Your task to perform on an android device: Open accessibility settings Image 0: 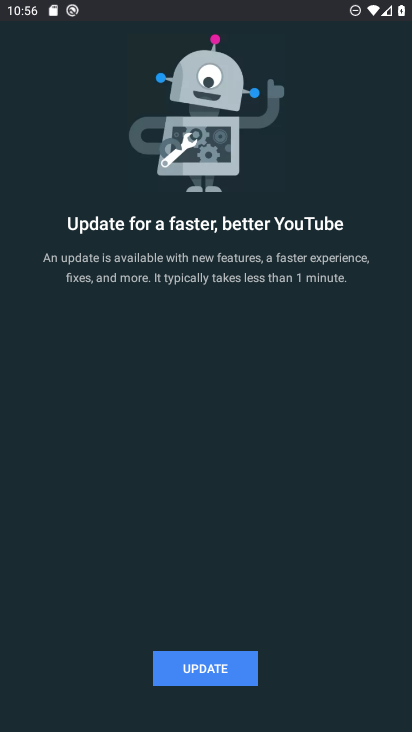
Step 0: press back button
Your task to perform on an android device: Open accessibility settings Image 1: 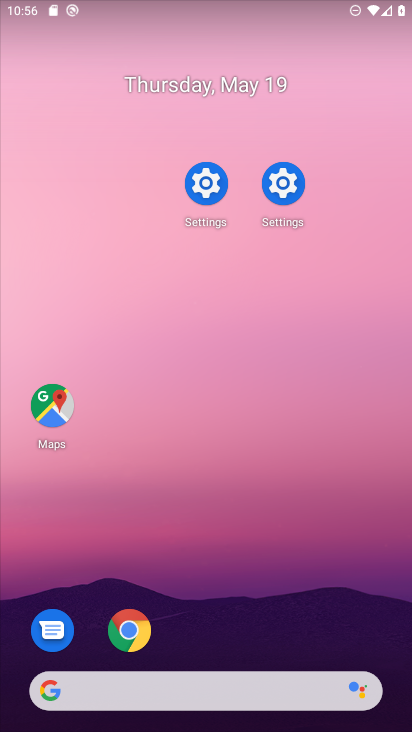
Step 1: drag from (260, 681) to (137, 113)
Your task to perform on an android device: Open accessibility settings Image 2: 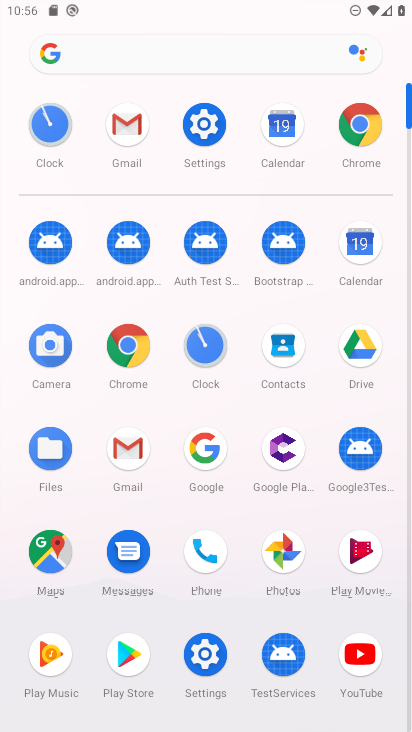
Step 2: click (206, 149)
Your task to perform on an android device: Open accessibility settings Image 3: 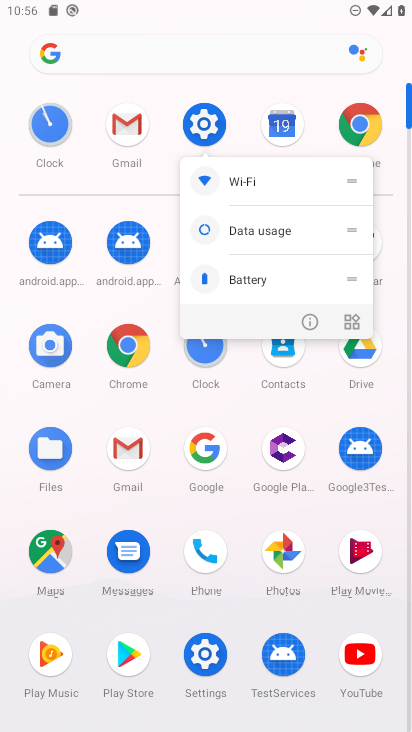
Step 3: click (210, 120)
Your task to perform on an android device: Open accessibility settings Image 4: 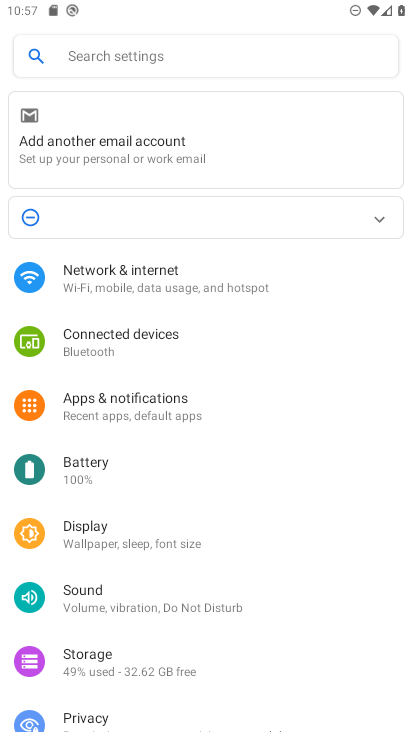
Step 4: drag from (148, 470) to (157, 144)
Your task to perform on an android device: Open accessibility settings Image 5: 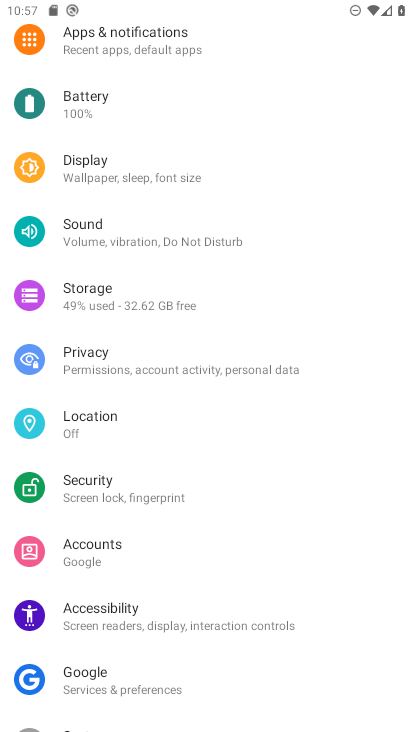
Step 5: drag from (167, 386) to (140, 126)
Your task to perform on an android device: Open accessibility settings Image 6: 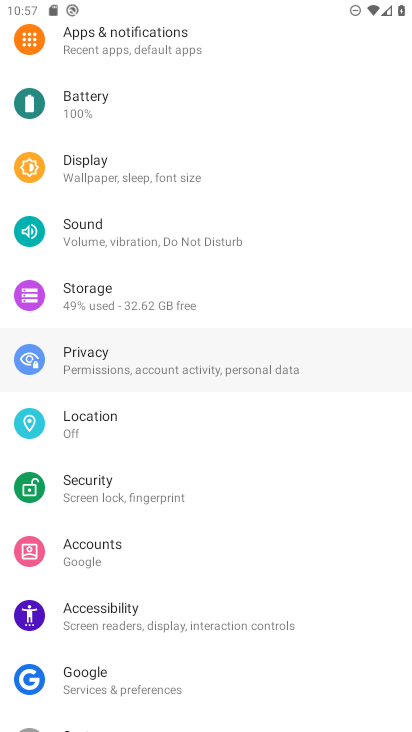
Step 6: drag from (149, 442) to (110, 90)
Your task to perform on an android device: Open accessibility settings Image 7: 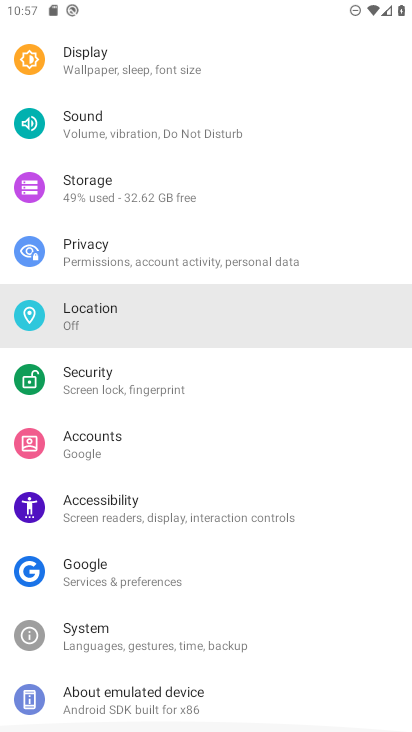
Step 7: drag from (172, 482) to (160, 105)
Your task to perform on an android device: Open accessibility settings Image 8: 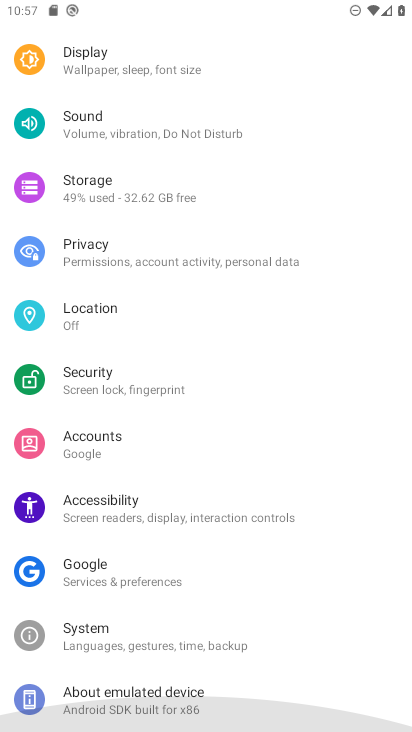
Step 8: drag from (119, 337) to (117, 84)
Your task to perform on an android device: Open accessibility settings Image 9: 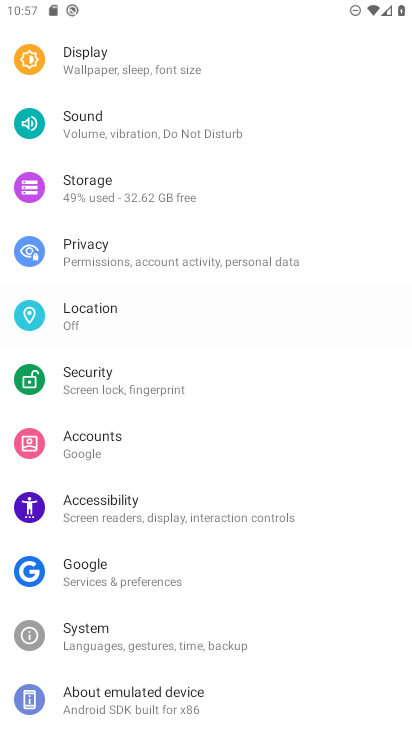
Step 9: drag from (108, 423) to (177, 220)
Your task to perform on an android device: Open accessibility settings Image 10: 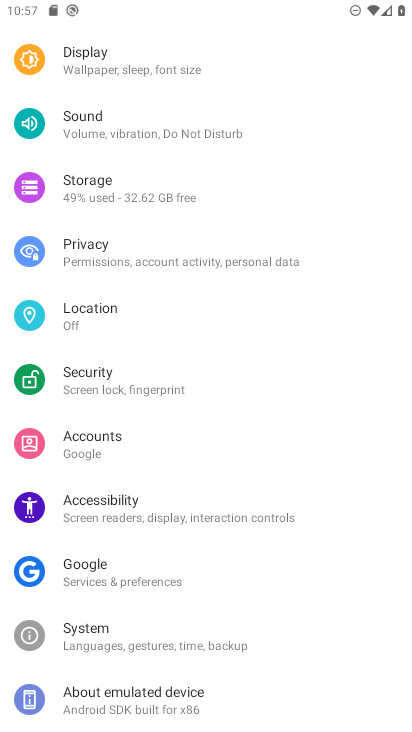
Step 10: click (87, 497)
Your task to perform on an android device: Open accessibility settings Image 11: 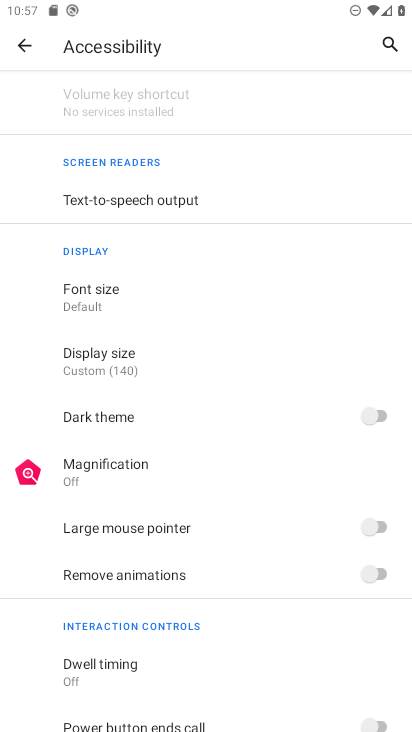
Step 11: task complete